Your task to perform on an android device: Open the stopwatch Image 0: 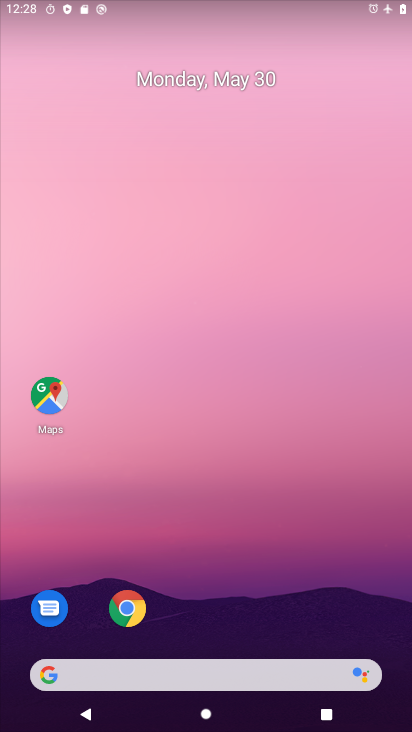
Step 0: drag from (231, 660) to (147, 33)
Your task to perform on an android device: Open the stopwatch Image 1: 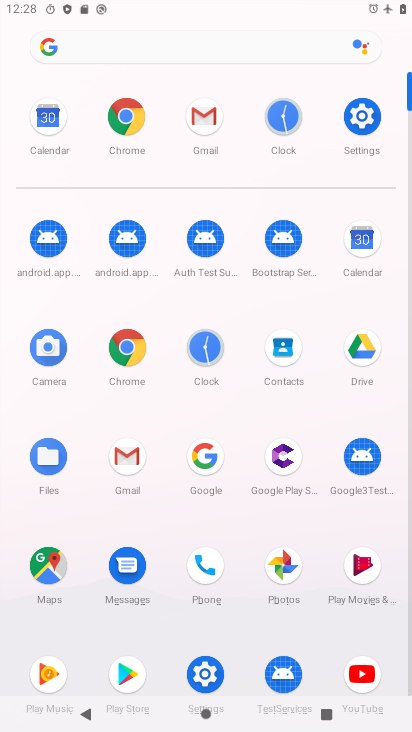
Step 1: click (208, 340)
Your task to perform on an android device: Open the stopwatch Image 2: 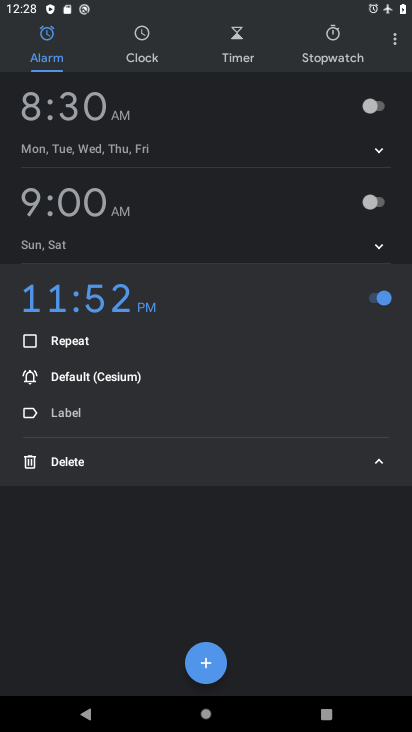
Step 2: click (312, 41)
Your task to perform on an android device: Open the stopwatch Image 3: 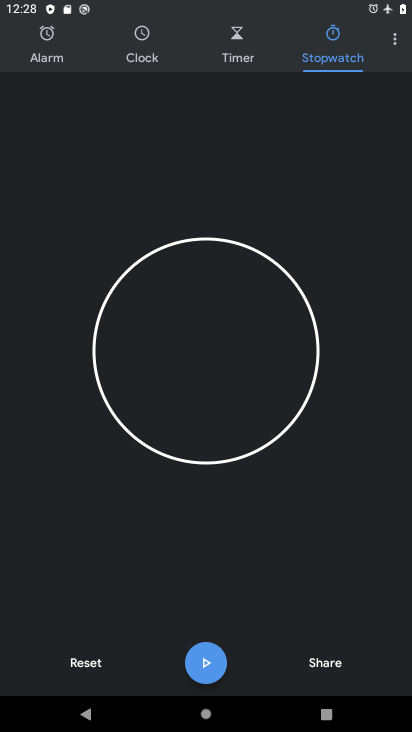
Step 3: task complete